Your task to perform on an android device: Turn on the flashlight Image 0: 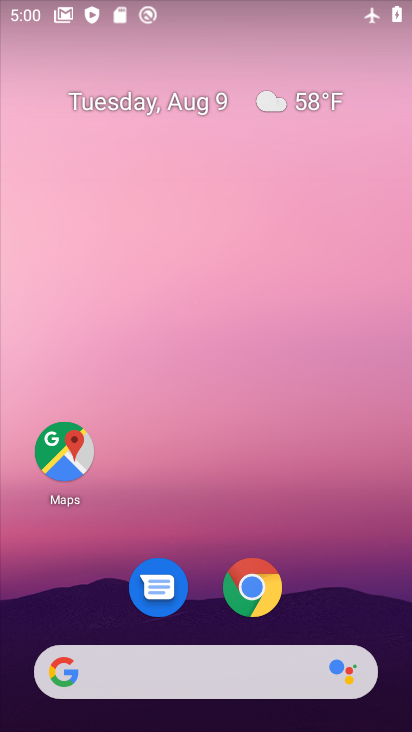
Step 0: drag from (225, 371) to (211, 99)
Your task to perform on an android device: Turn on the flashlight Image 1: 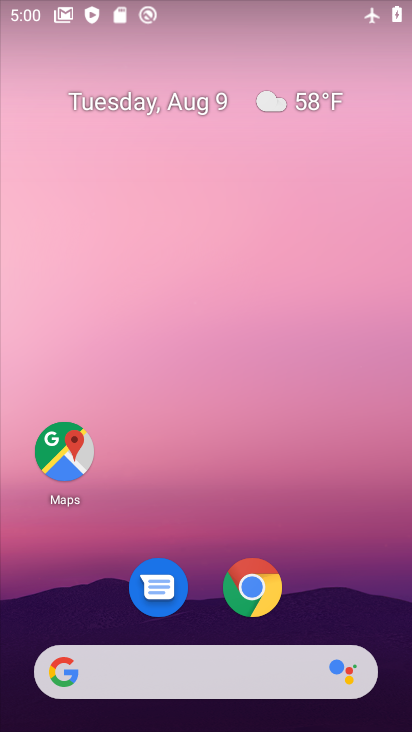
Step 1: task complete